Your task to perform on an android device: install app "Google Play Music" Image 0: 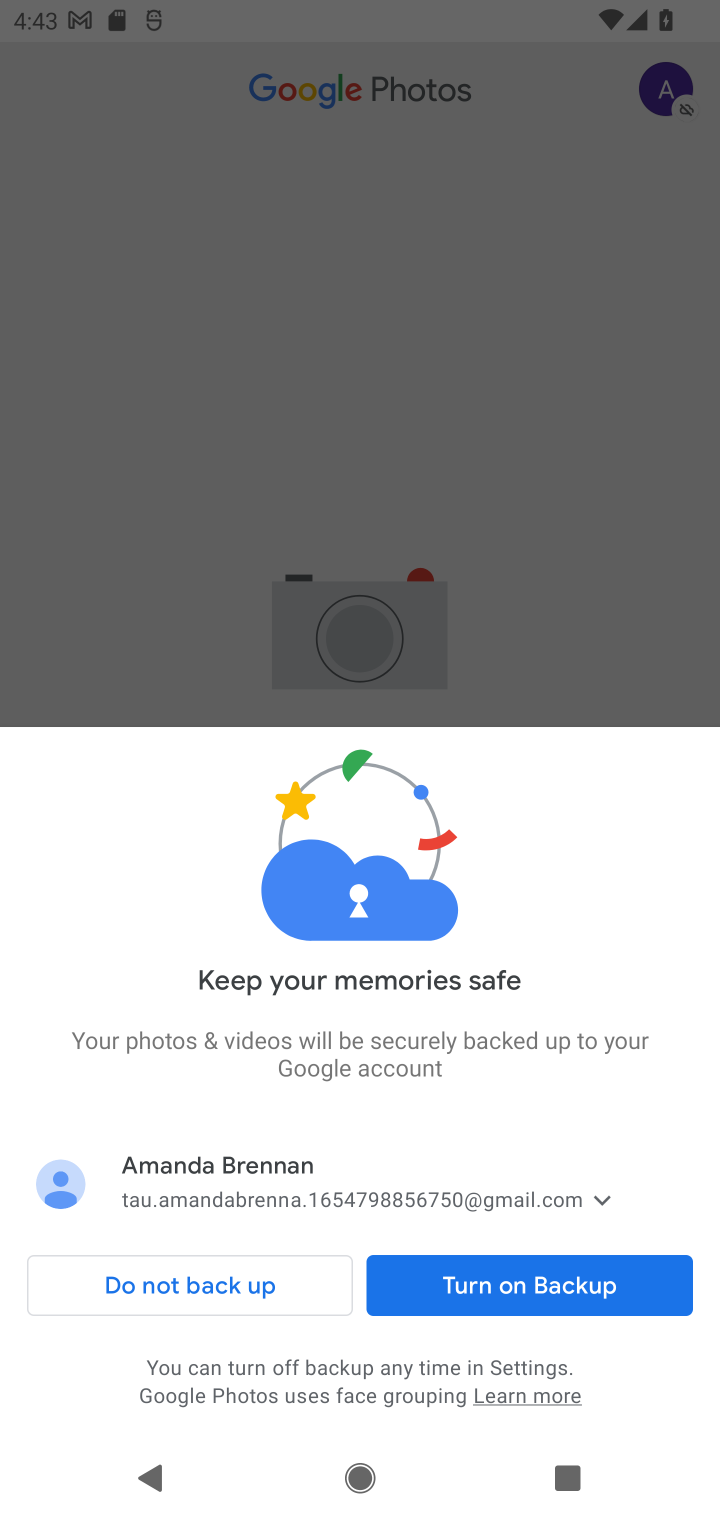
Step 0: press home button
Your task to perform on an android device: install app "Google Play Music" Image 1: 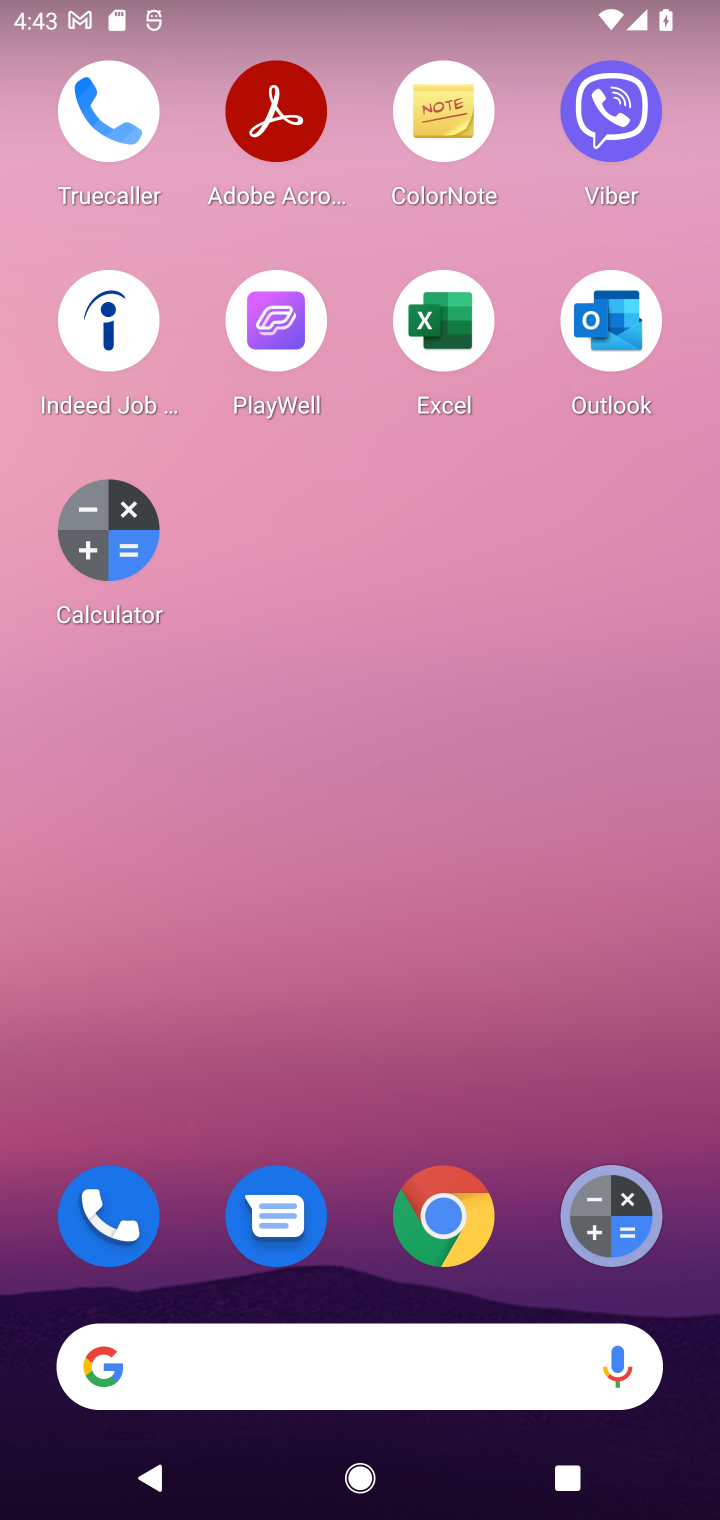
Step 1: drag from (526, 1280) to (516, 490)
Your task to perform on an android device: install app "Google Play Music" Image 2: 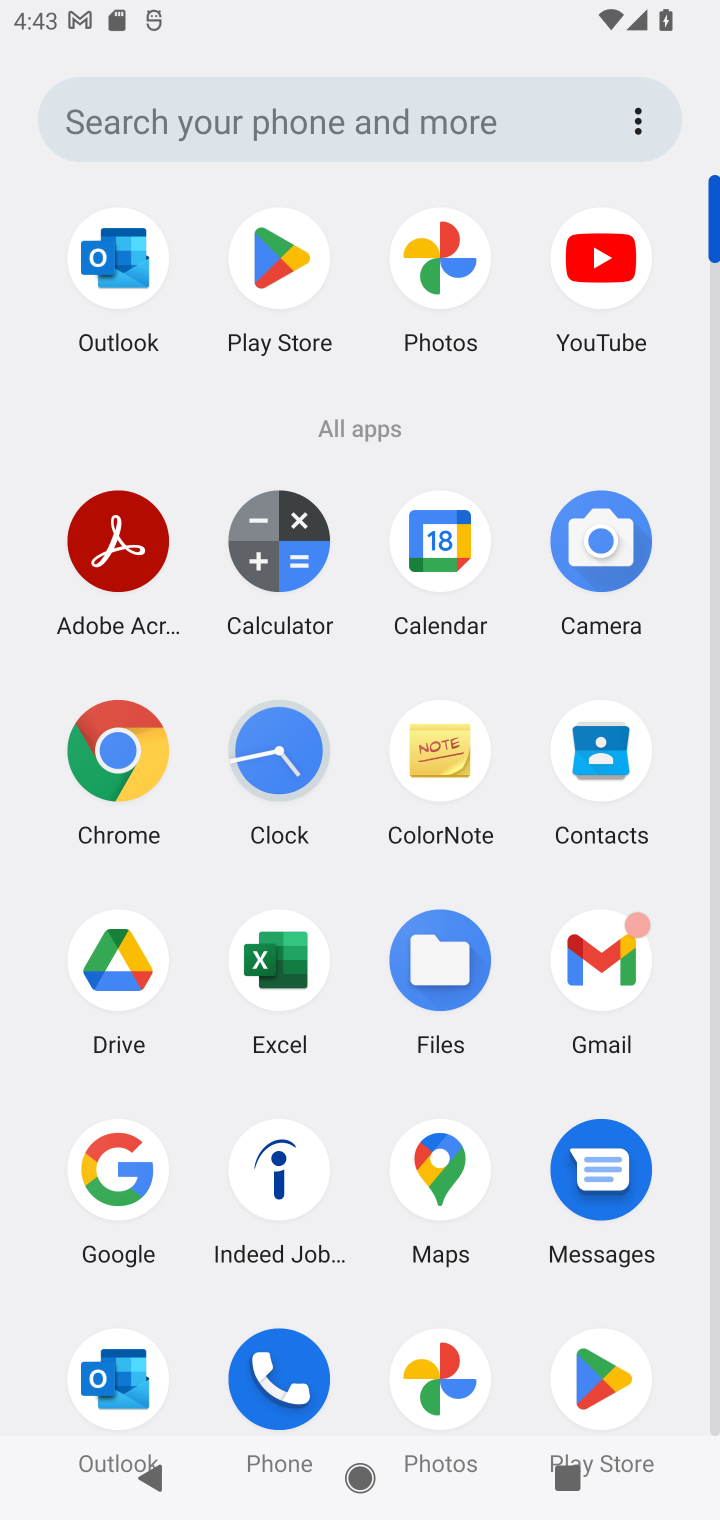
Step 2: drag from (514, 1280) to (514, 827)
Your task to perform on an android device: install app "Google Play Music" Image 3: 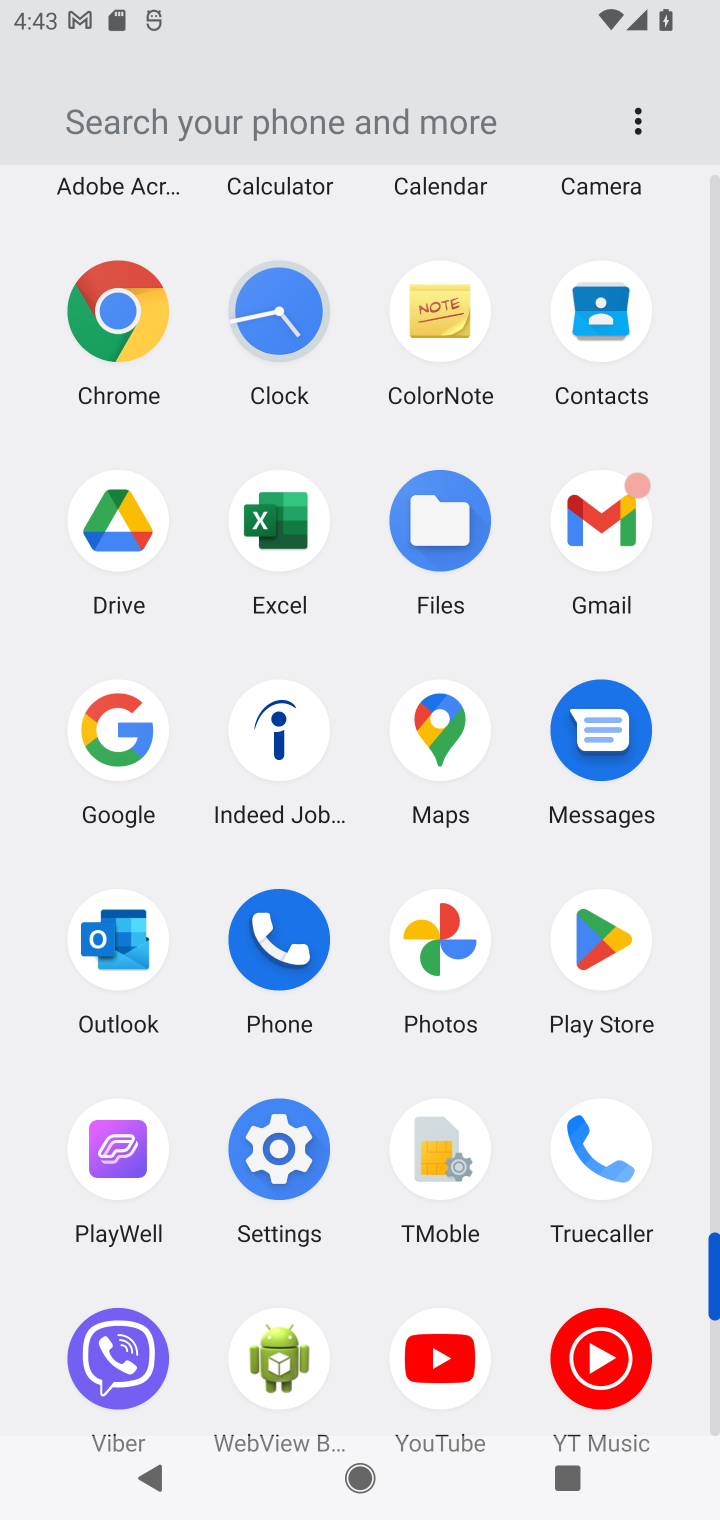
Step 3: drag from (510, 1287) to (513, 795)
Your task to perform on an android device: install app "Google Play Music" Image 4: 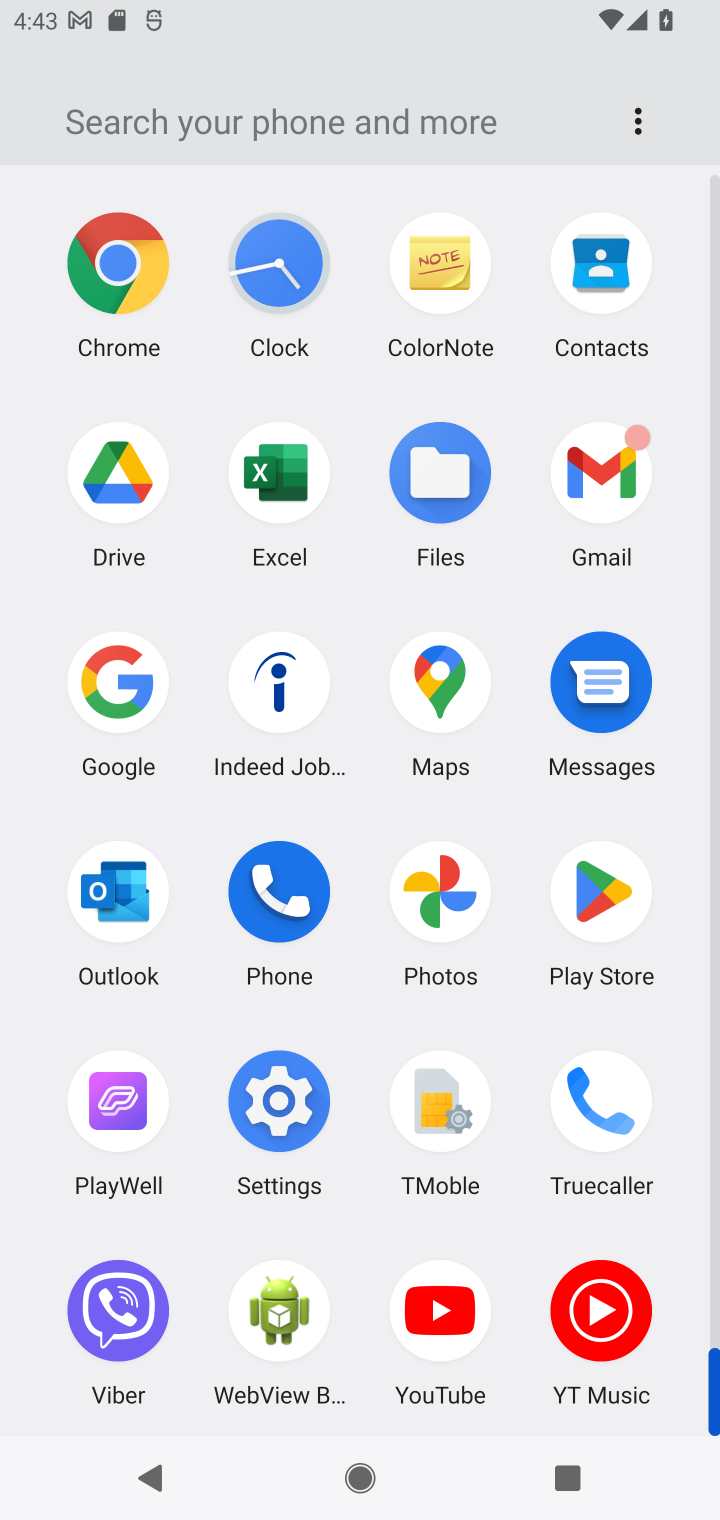
Step 4: click (611, 895)
Your task to perform on an android device: install app "Google Play Music" Image 5: 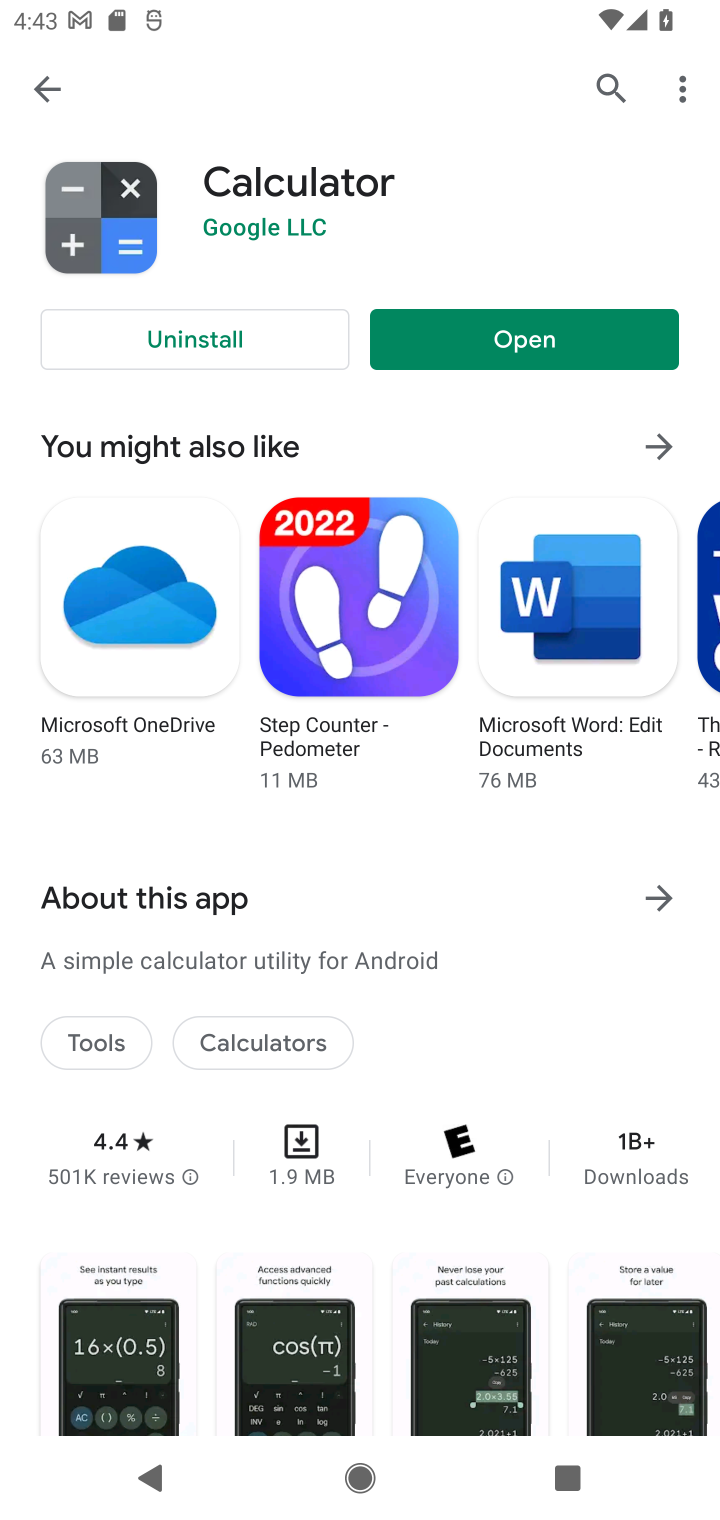
Step 5: click (593, 81)
Your task to perform on an android device: install app "Google Play Music" Image 6: 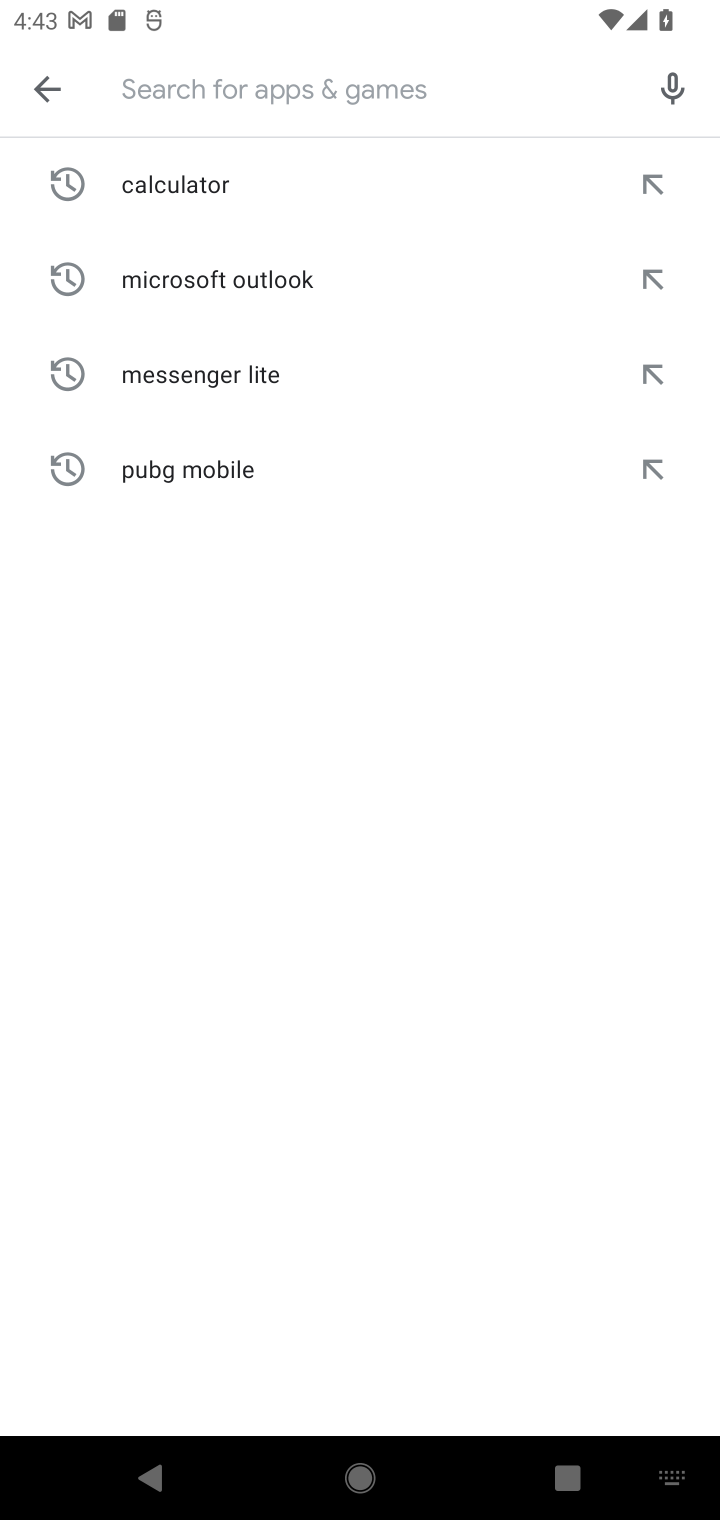
Step 6: type "Google Play Music"
Your task to perform on an android device: install app "Google Play Music" Image 7: 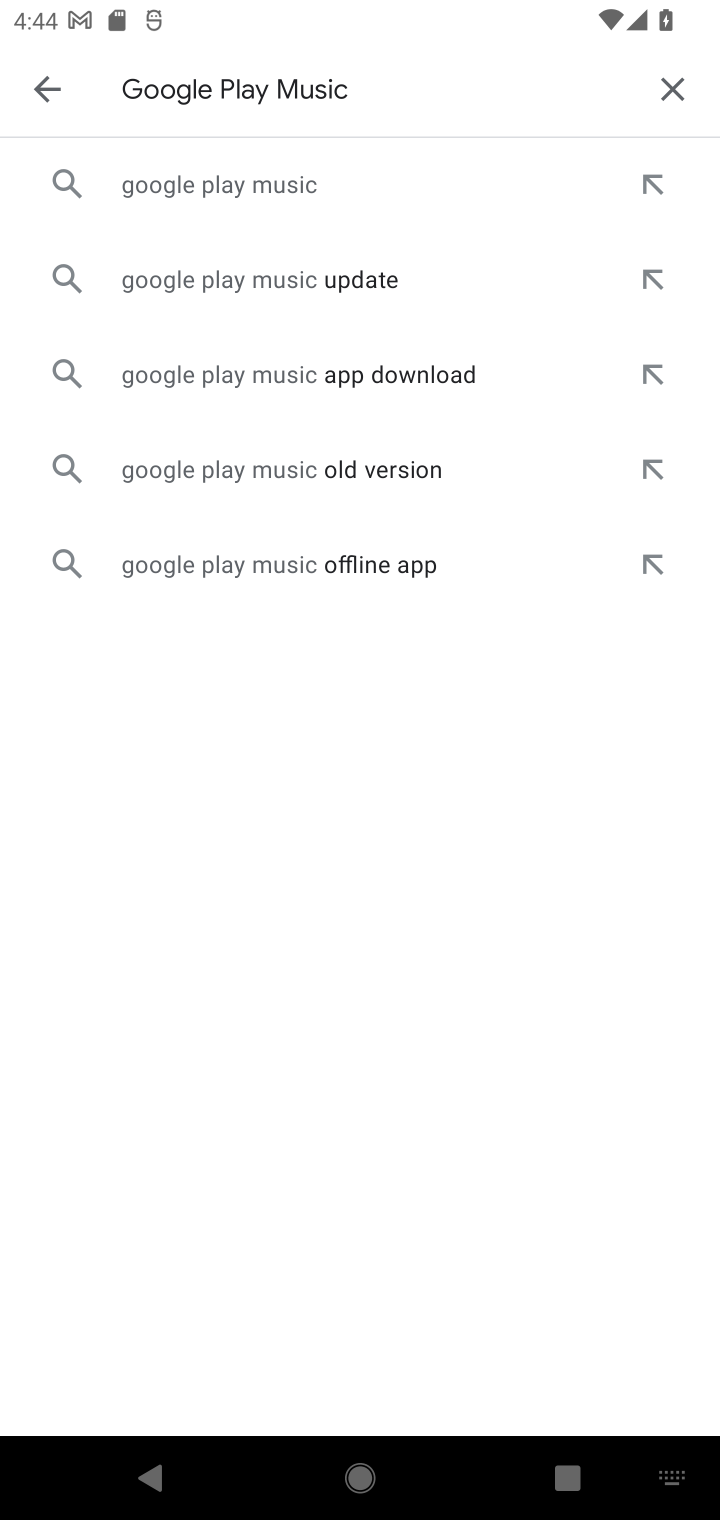
Step 7: click (198, 176)
Your task to perform on an android device: install app "Google Play Music" Image 8: 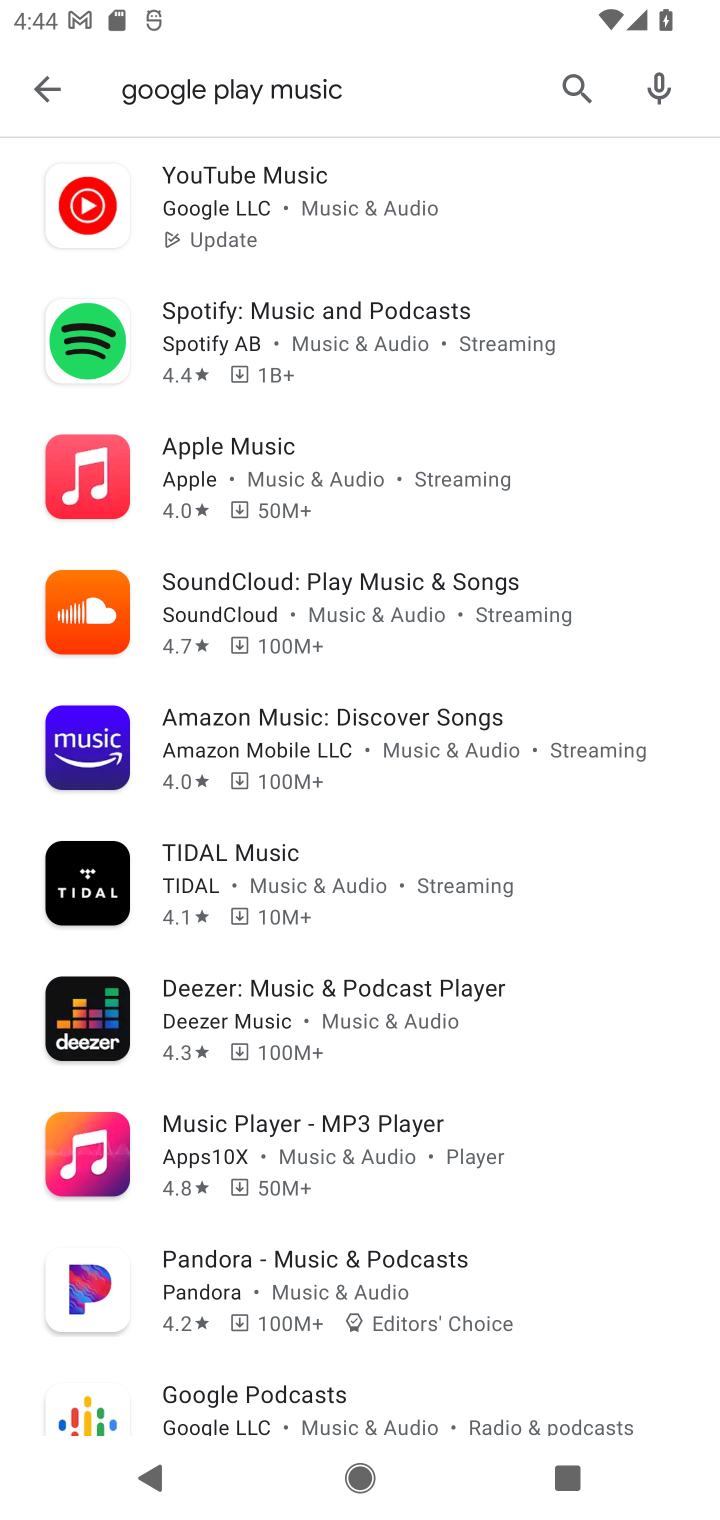
Step 8: drag from (489, 1065) to (541, 537)
Your task to perform on an android device: install app "Google Play Music" Image 9: 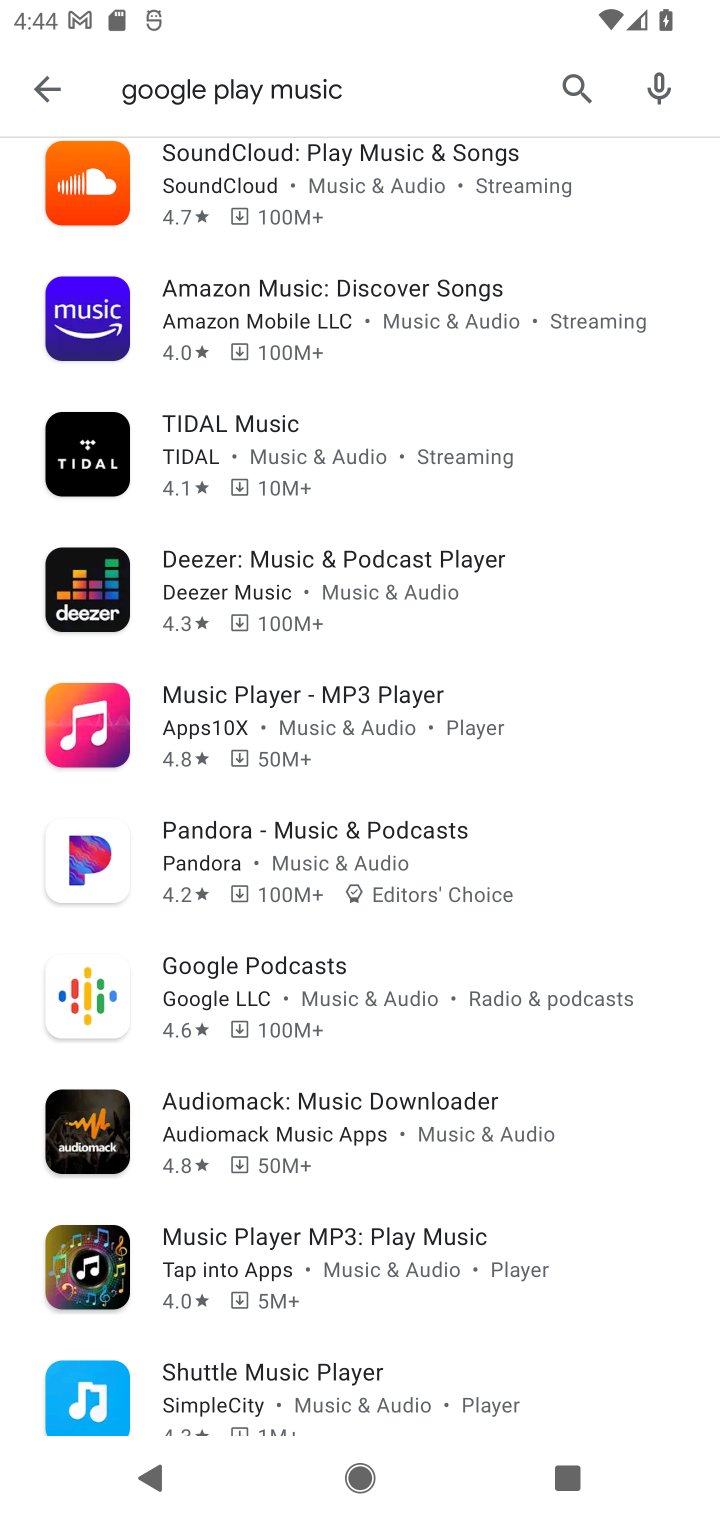
Step 9: drag from (580, 1306) to (584, 704)
Your task to perform on an android device: install app "Google Play Music" Image 10: 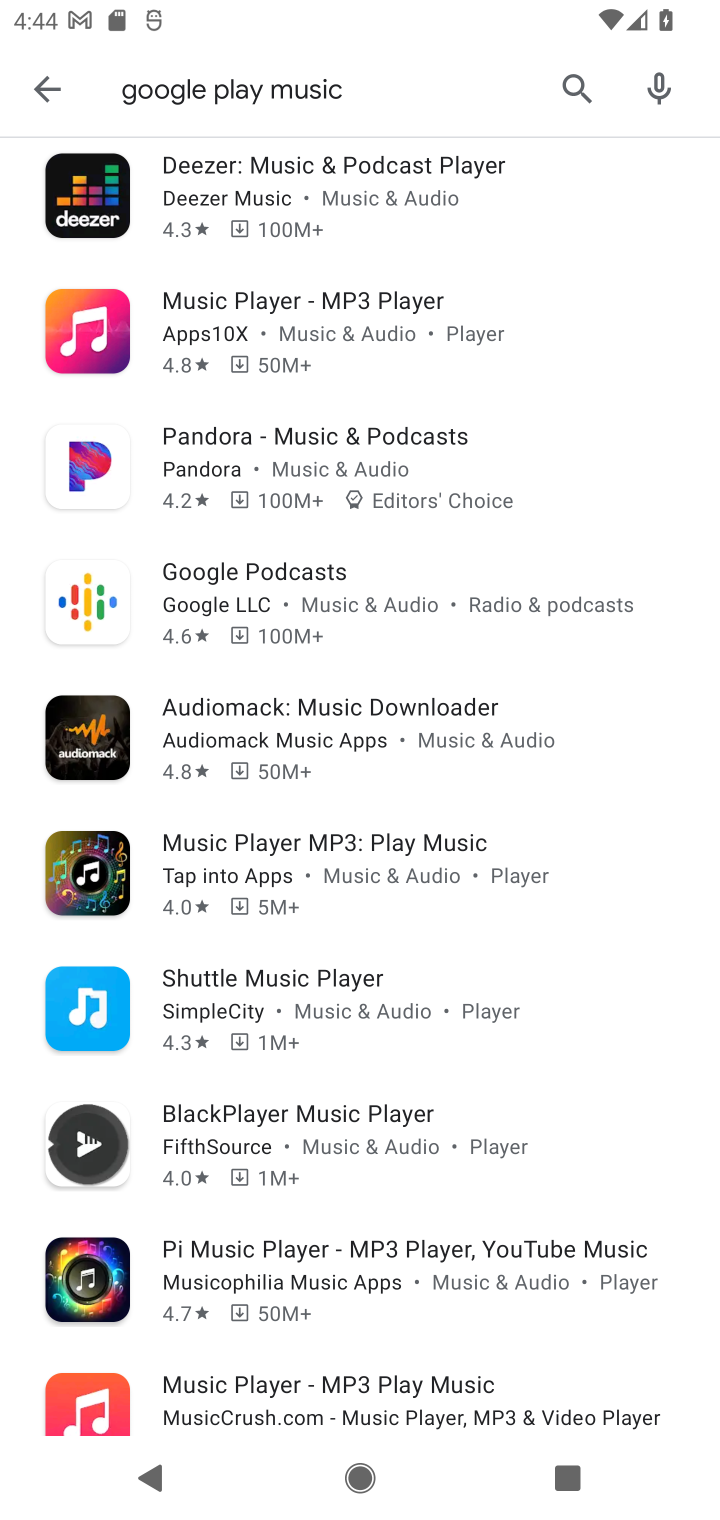
Step 10: drag from (613, 1230) to (626, 460)
Your task to perform on an android device: install app "Google Play Music" Image 11: 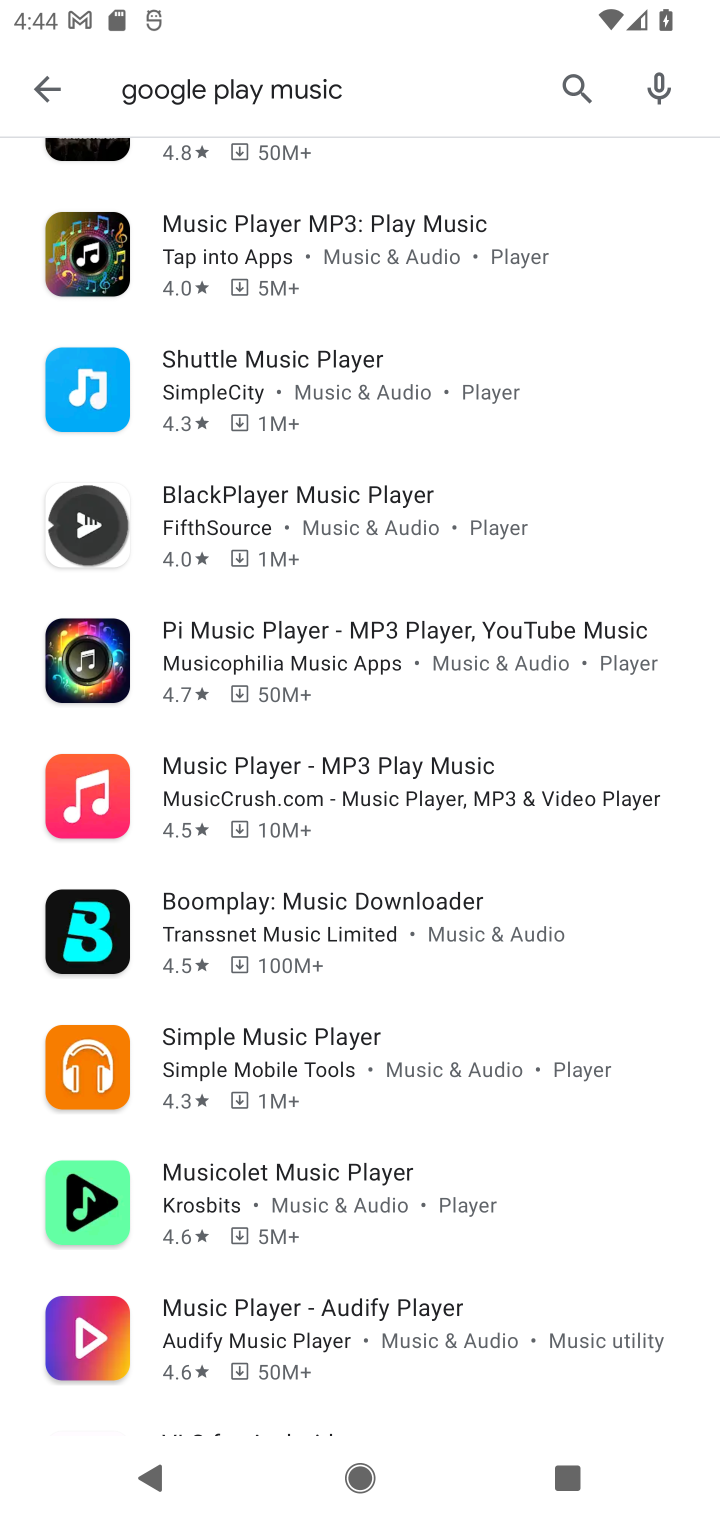
Step 11: drag from (577, 1202) to (562, 358)
Your task to perform on an android device: install app "Google Play Music" Image 12: 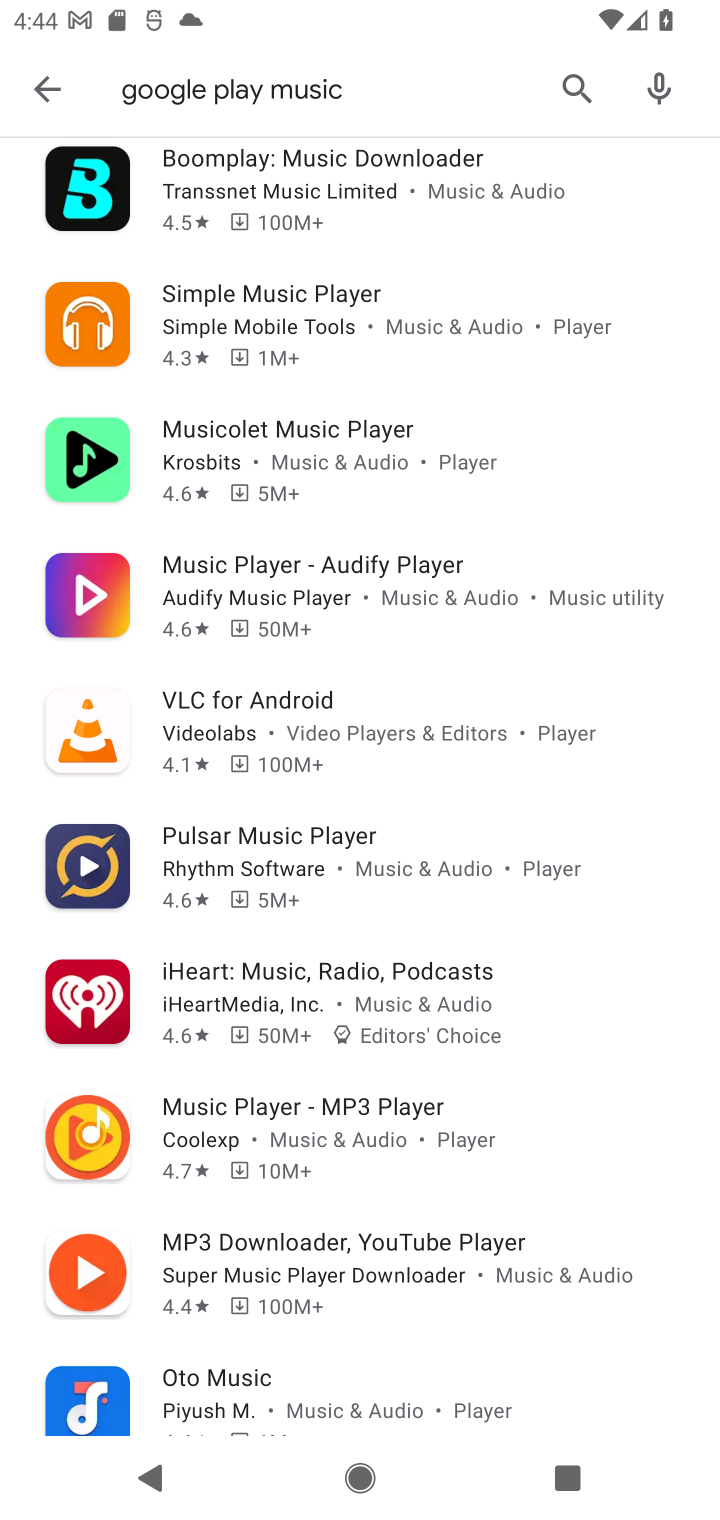
Step 12: drag from (570, 1199) to (563, 347)
Your task to perform on an android device: install app "Google Play Music" Image 13: 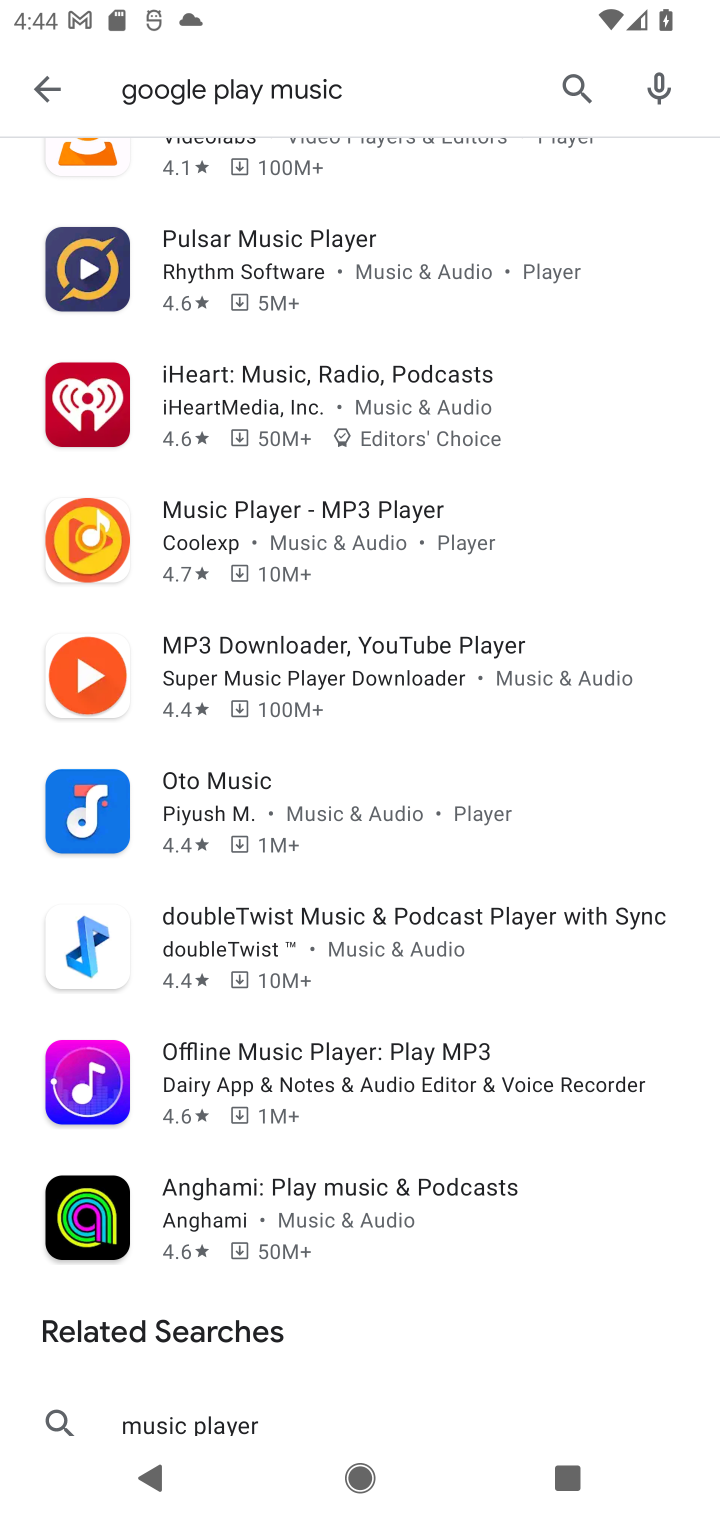
Step 13: drag from (551, 1168) to (604, 303)
Your task to perform on an android device: install app "Google Play Music" Image 14: 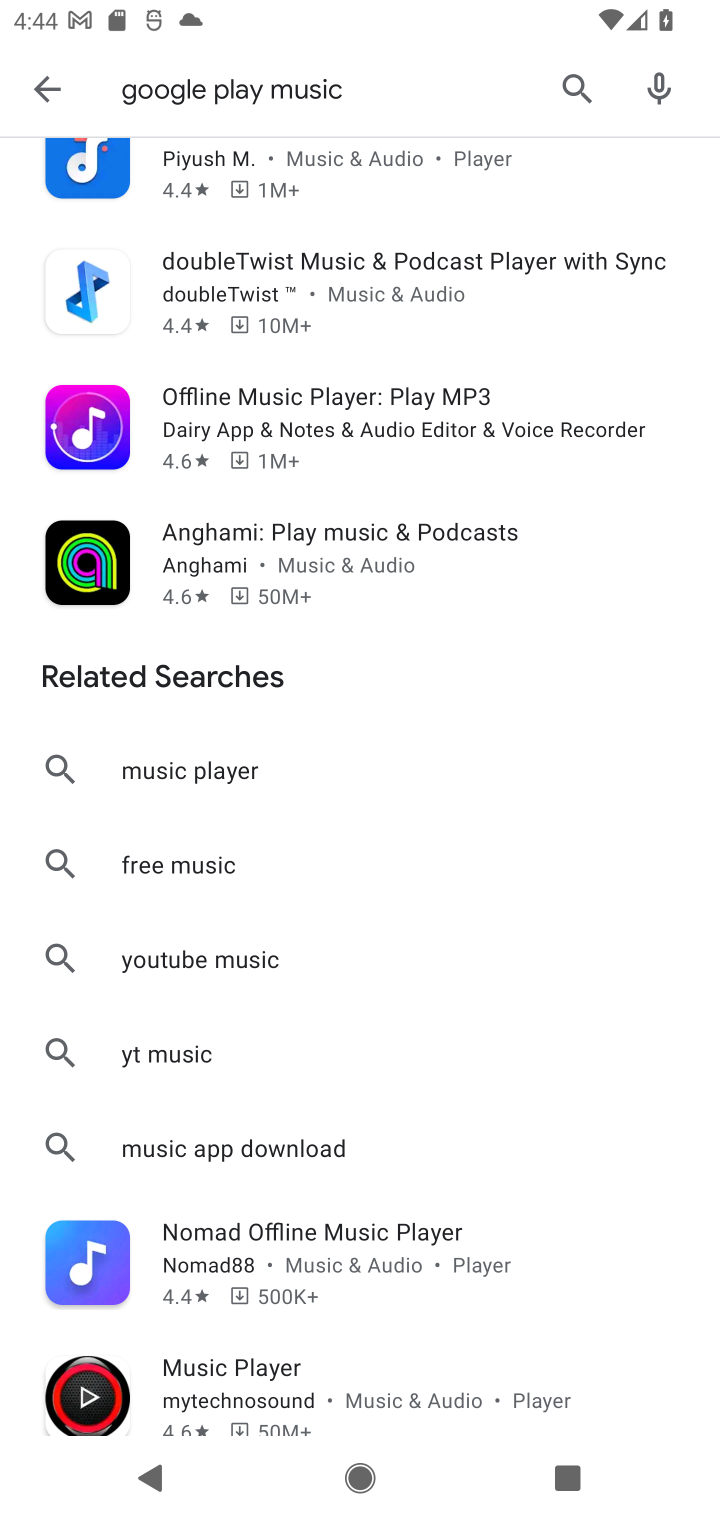
Step 14: drag from (527, 1347) to (557, 272)
Your task to perform on an android device: install app "Google Play Music" Image 15: 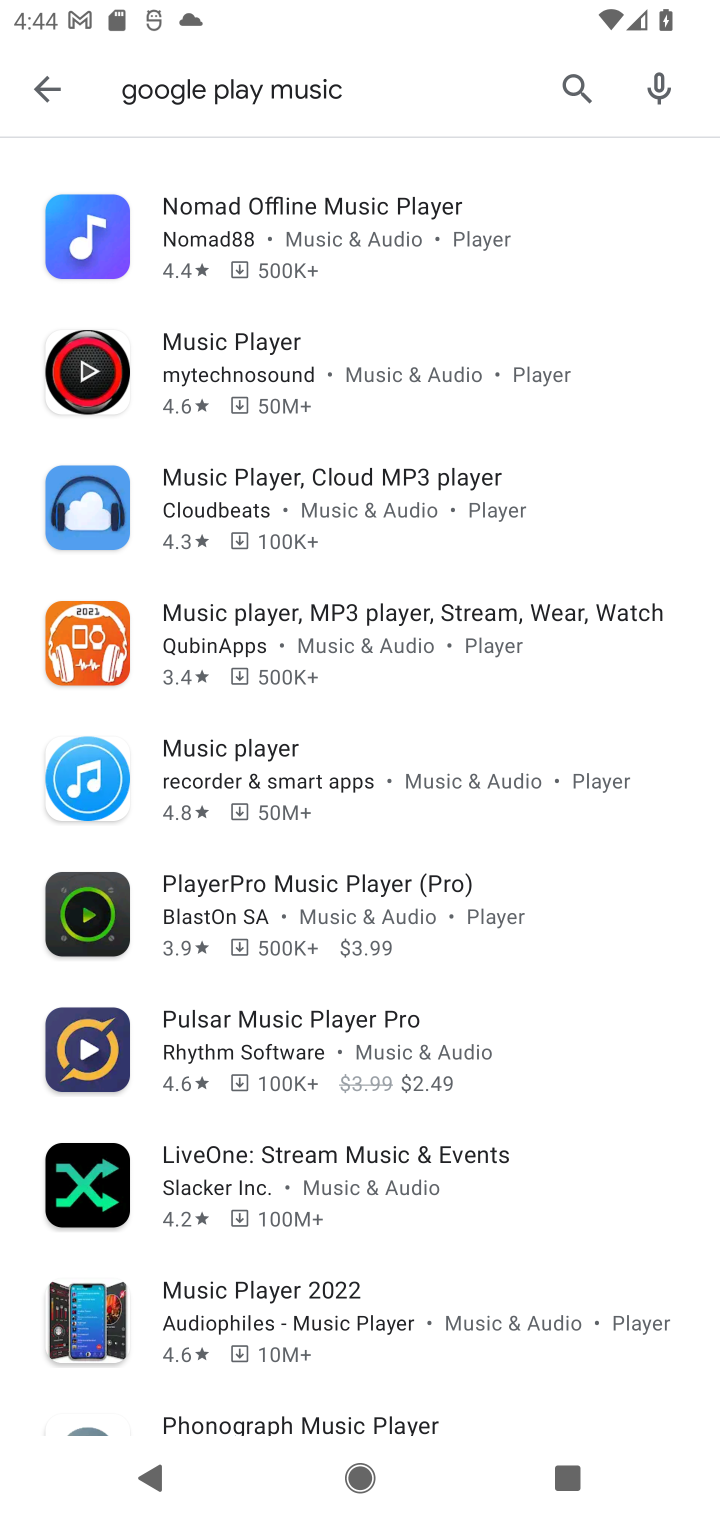
Step 15: drag from (618, 424) to (548, 1247)
Your task to perform on an android device: install app "Google Play Music" Image 16: 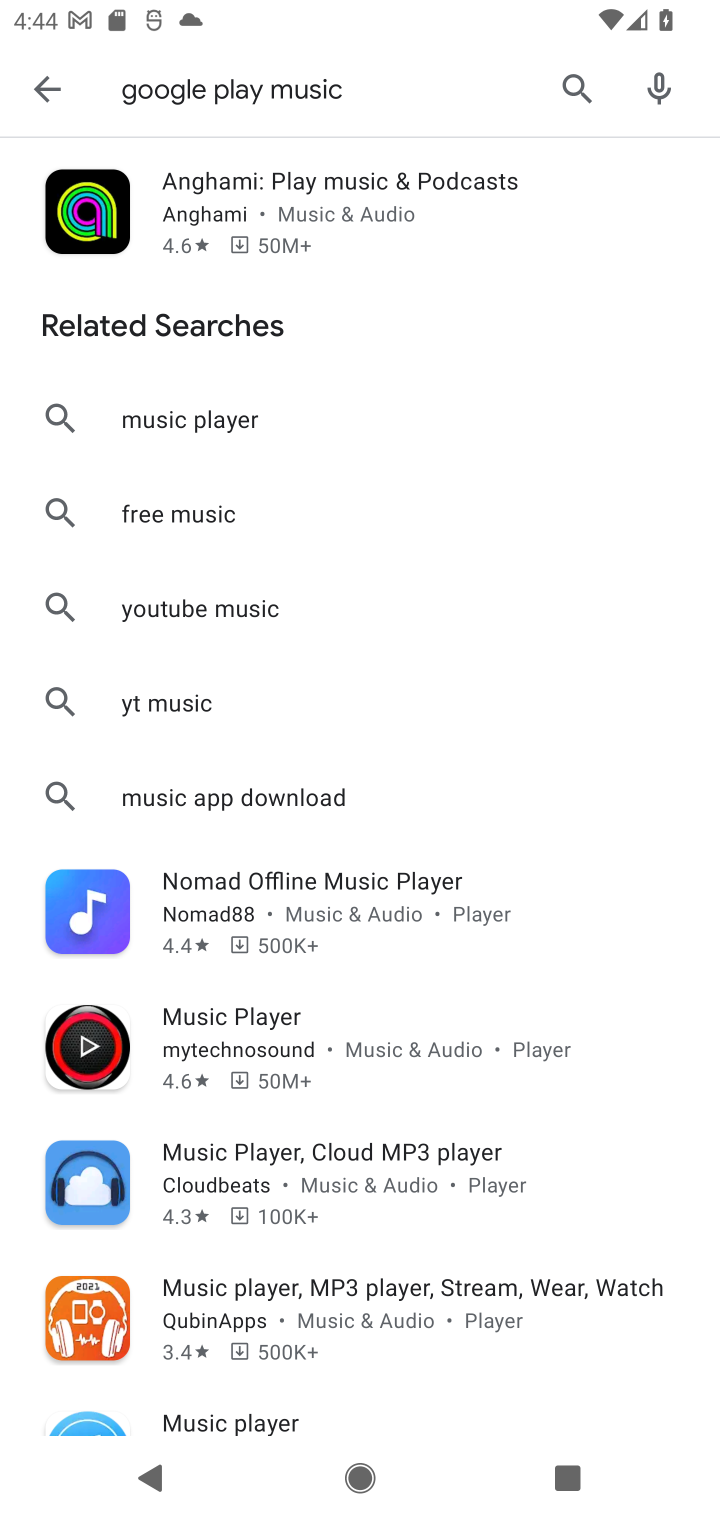
Step 16: drag from (548, 365) to (521, 1224)
Your task to perform on an android device: install app "Google Play Music" Image 17: 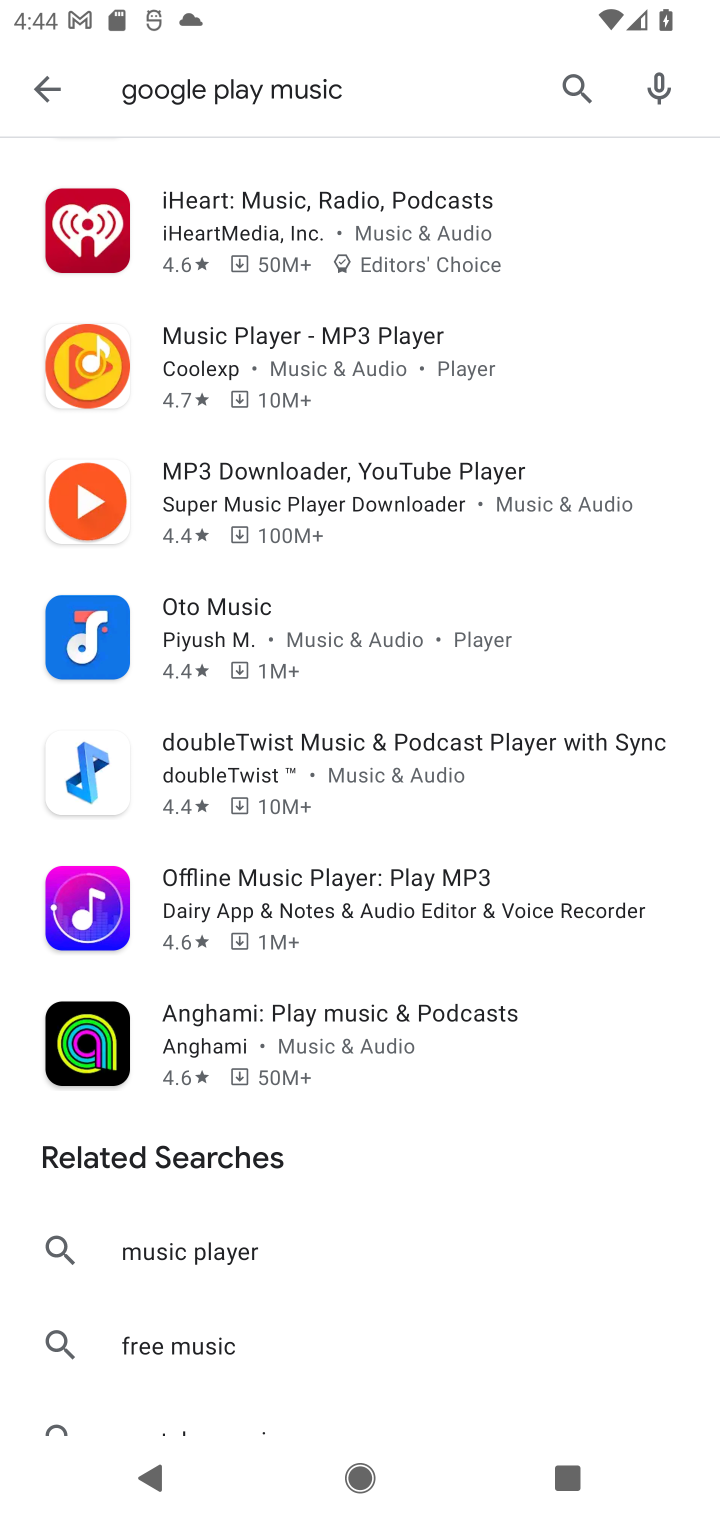
Step 17: drag from (601, 303) to (597, 1319)
Your task to perform on an android device: install app "Google Play Music" Image 18: 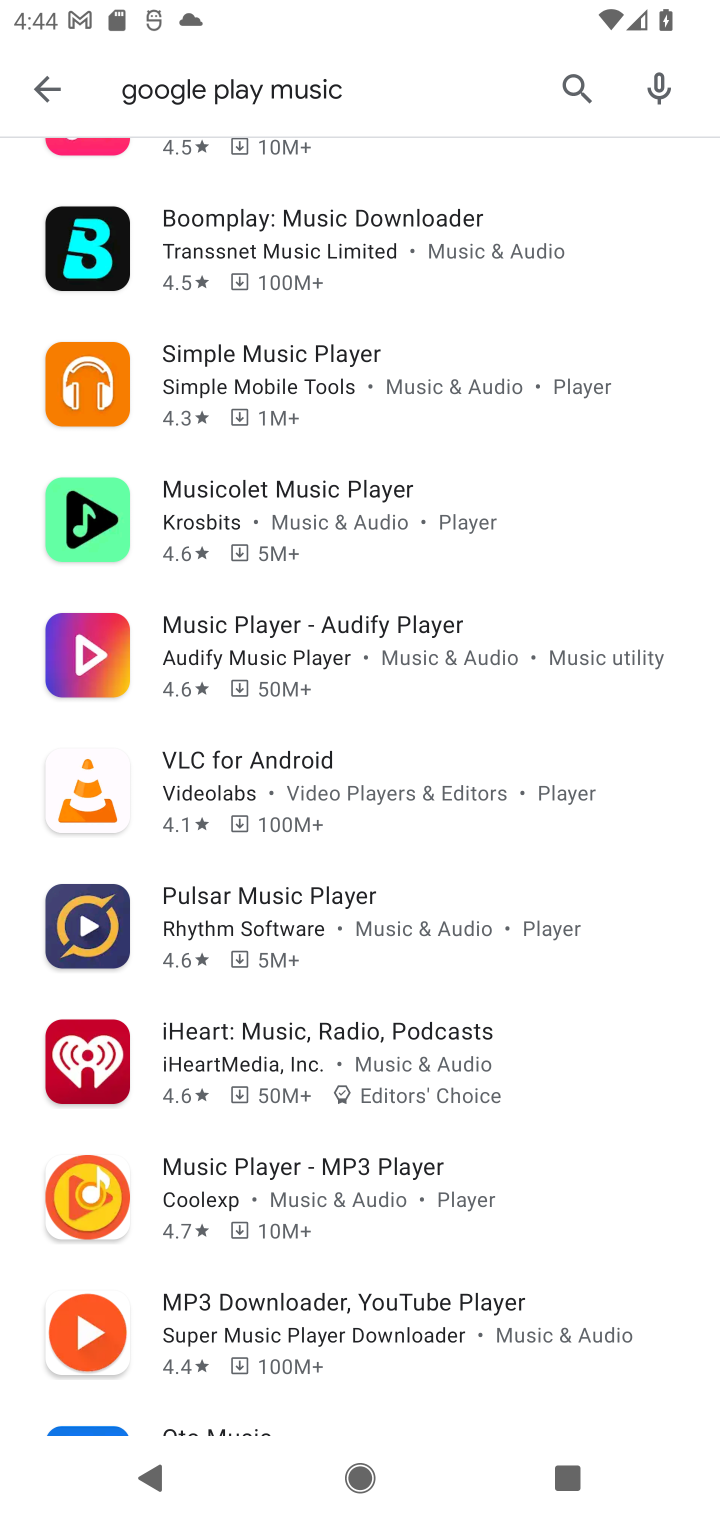
Step 18: drag from (637, 360) to (581, 1184)
Your task to perform on an android device: install app "Google Play Music" Image 19: 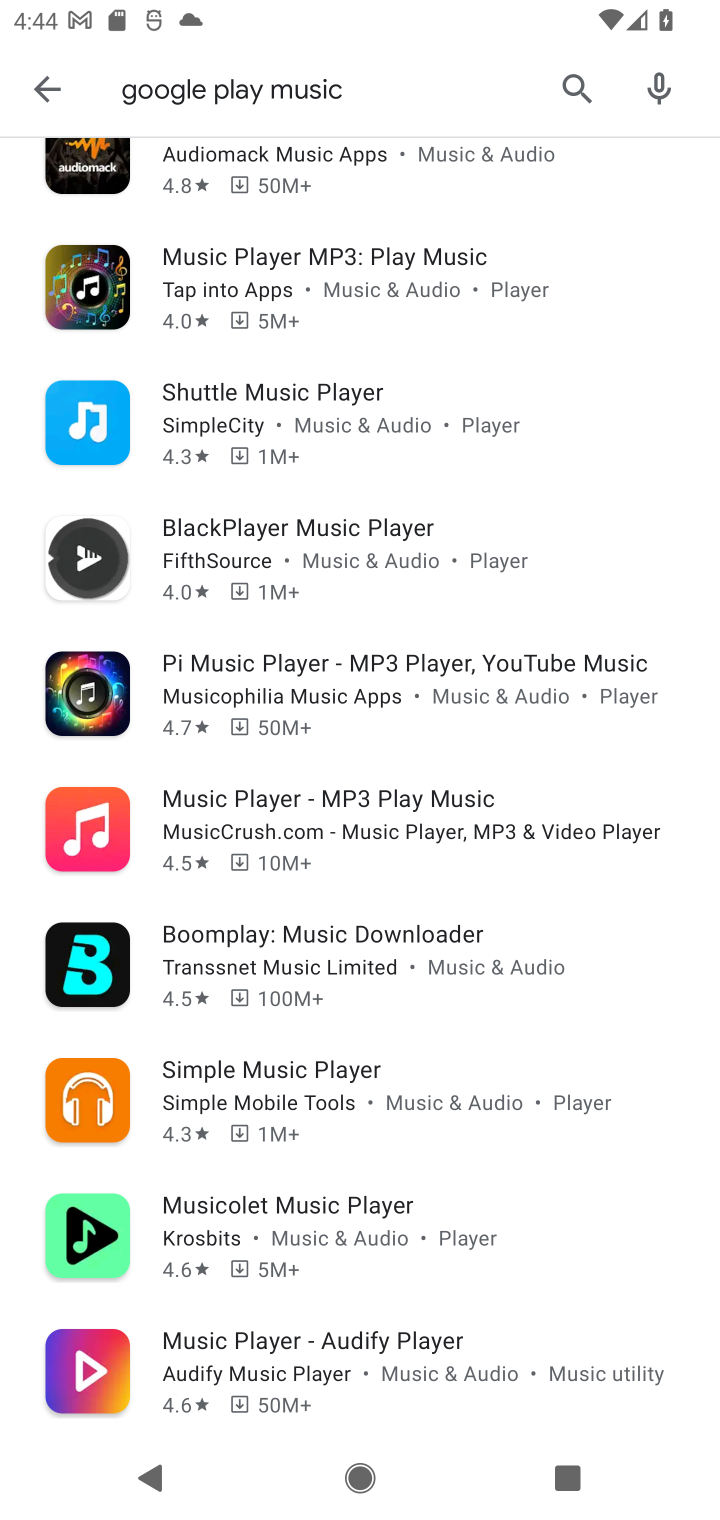
Step 19: drag from (584, 321) to (599, 1087)
Your task to perform on an android device: install app "Google Play Music" Image 20: 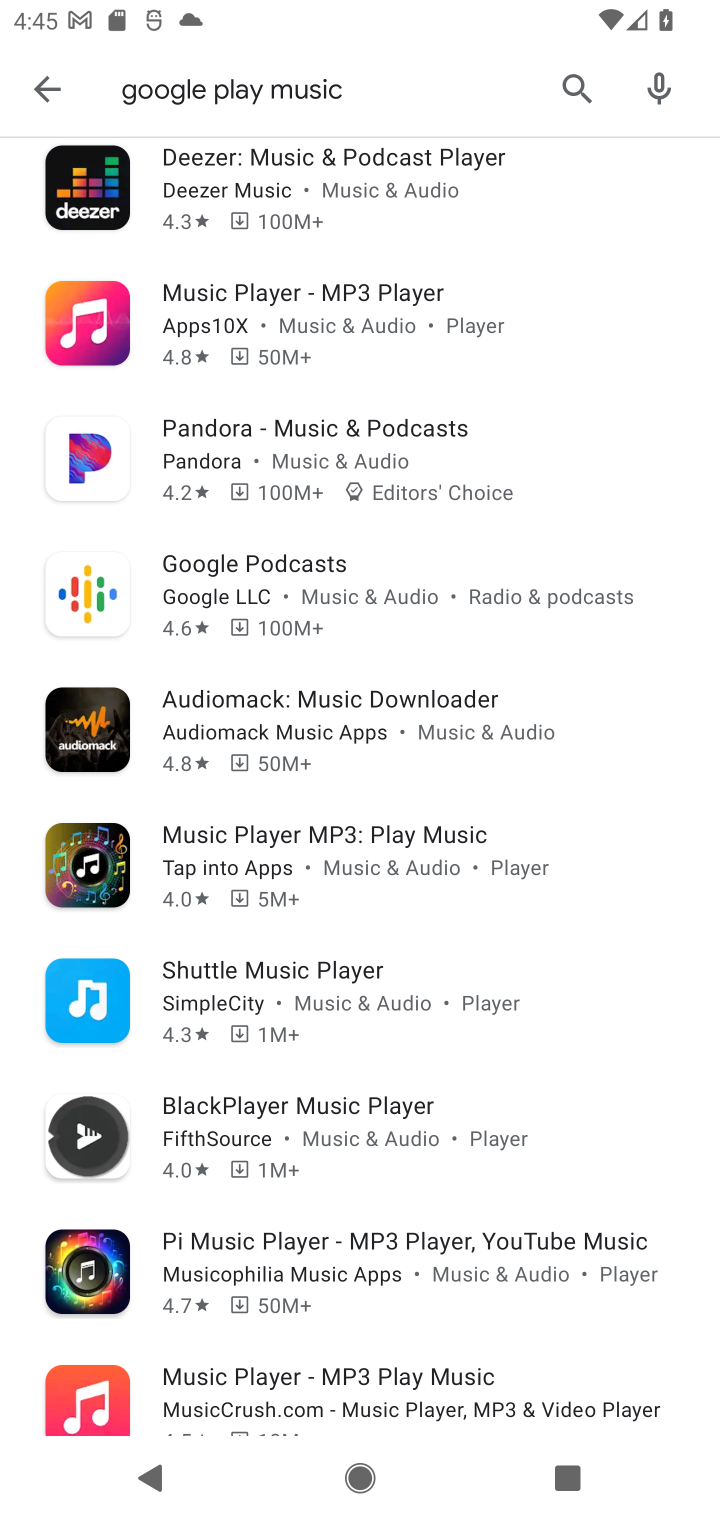
Step 20: drag from (620, 492) to (602, 967)
Your task to perform on an android device: install app "Google Play Music" Image 21: 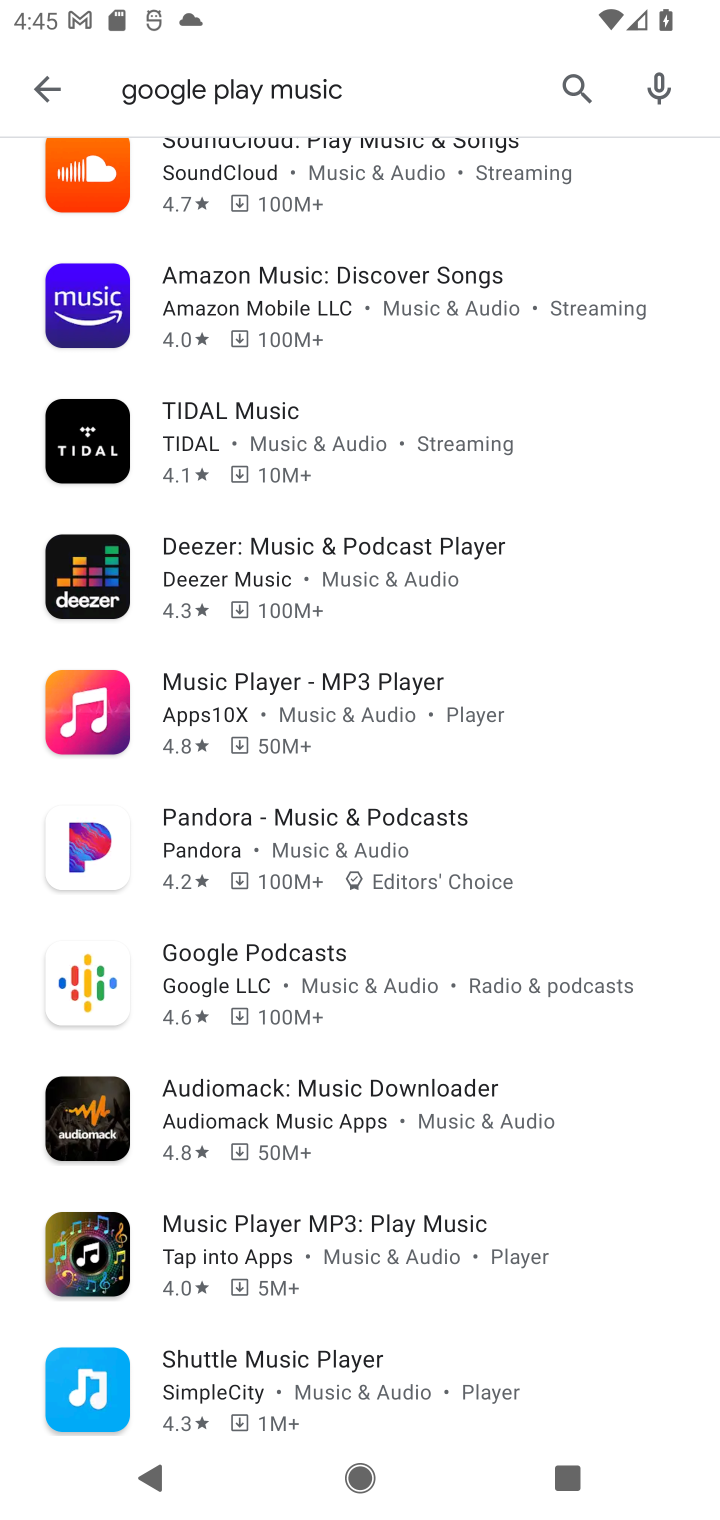
Step 21: drag from (592, 375) to (551, 1104)
Your task to perform on an android device: install app "Google Play Music" Image 22: 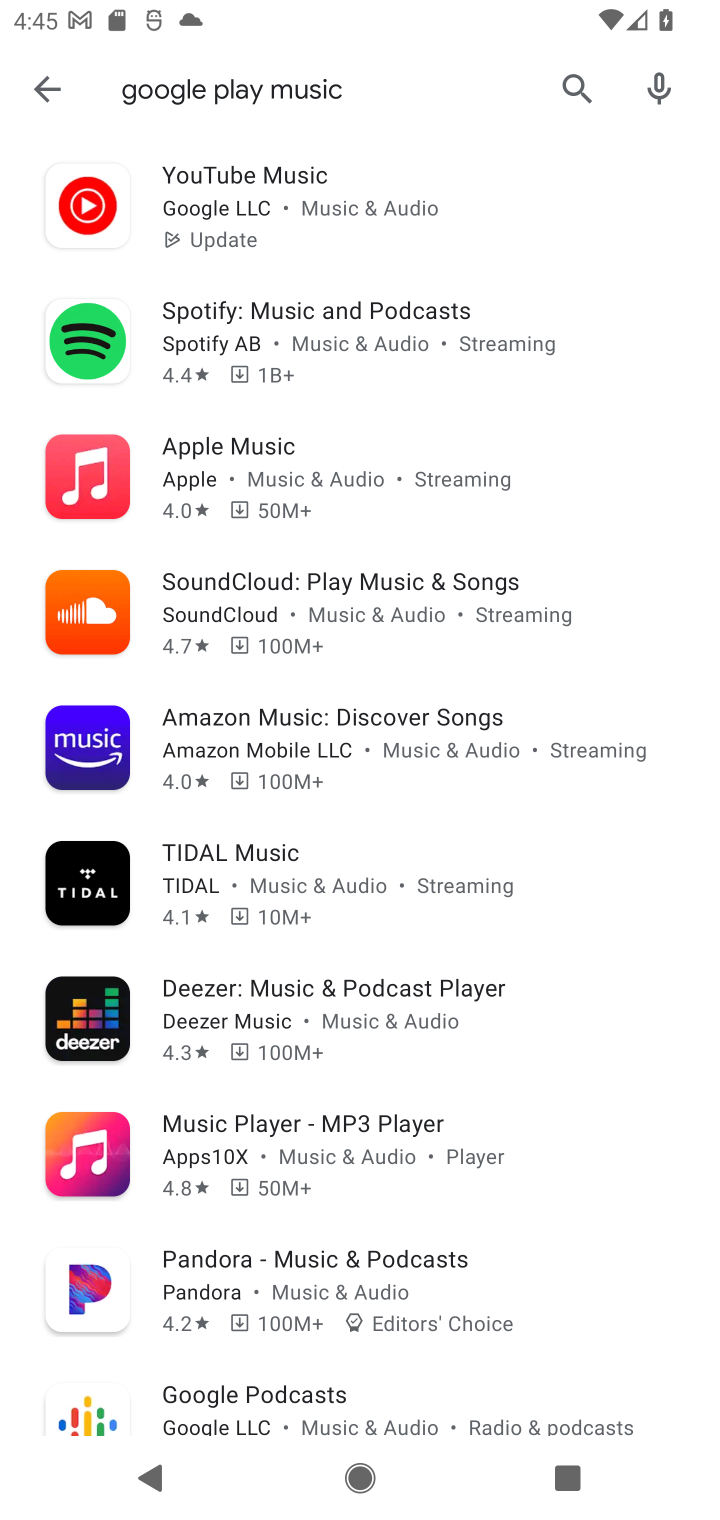
Step 22: drag from (583, 321) to (547, 1145)
Your task to perform on an android device: install app "Google Play Music" Image 23: 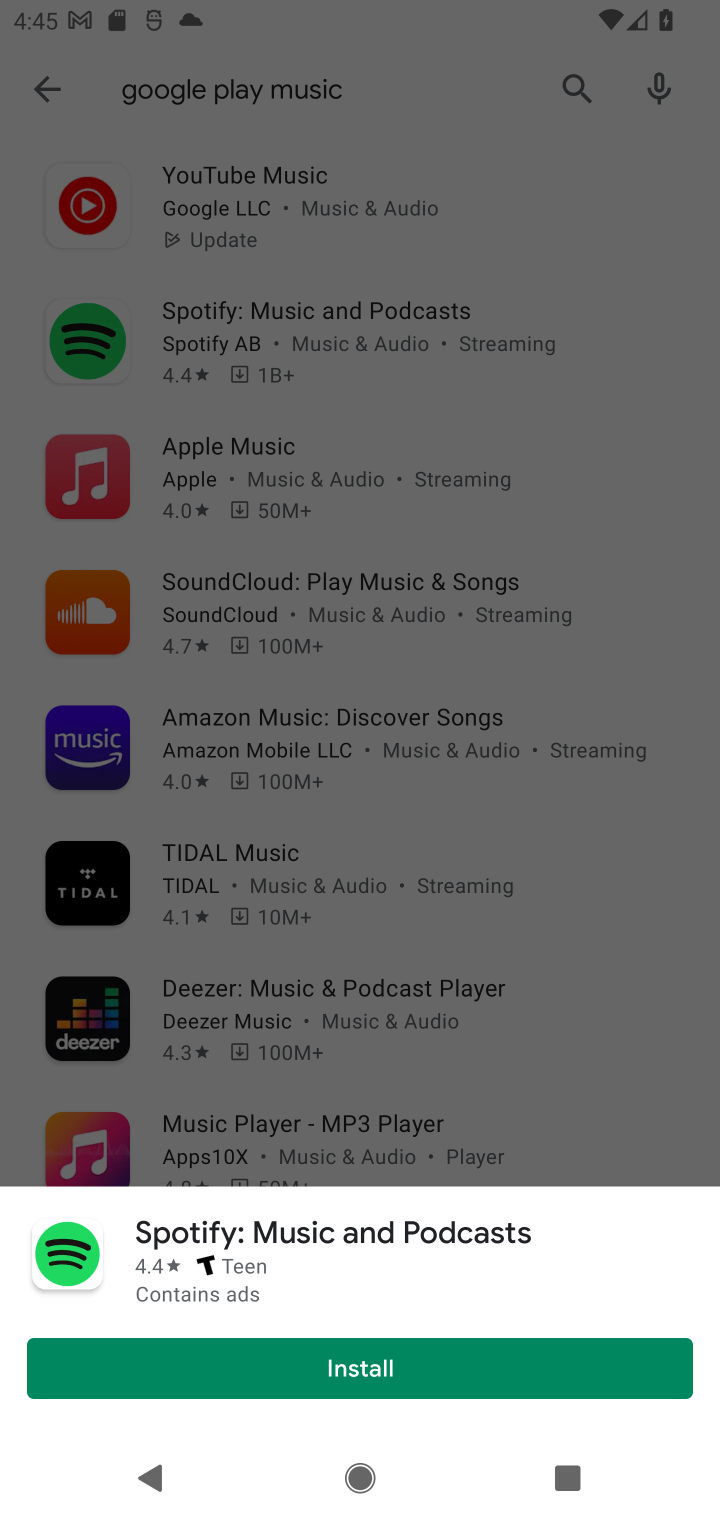
Step 23: click (590, 332)
Your task to perform on an android device: install app "Google Play Music" Image 24: 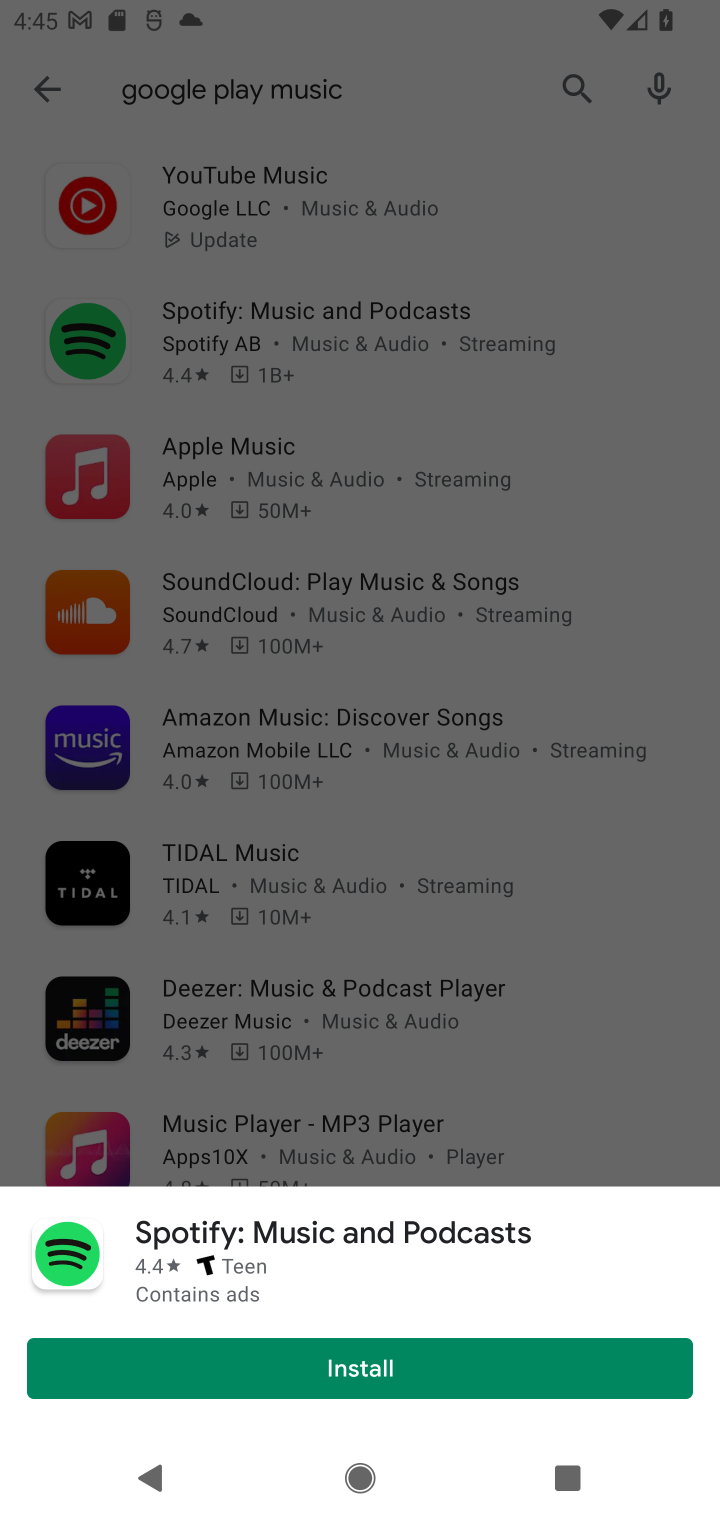
Step 24: task complete